Your task to perform on an android device: Open location settings Image 0: 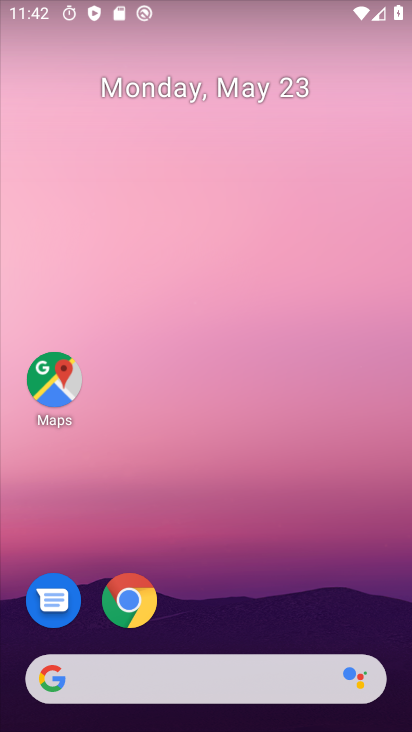
Step 0: drag from (289, 502) to (253, 160)
Your task to perform on an android device: Open location settings Image 1: 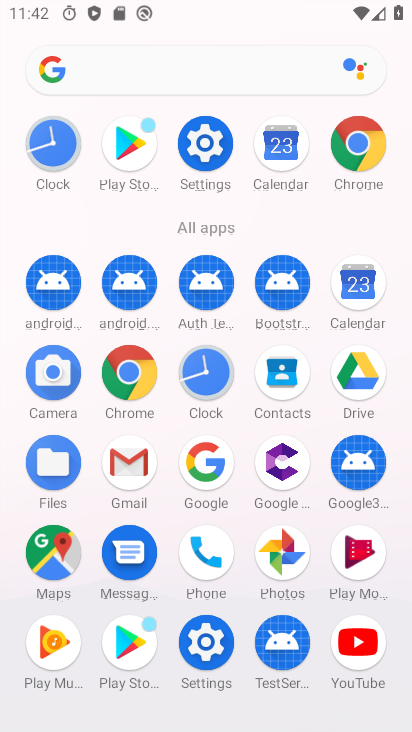
Step 1: click (175, 140)
Your task to perform on an android device: Open location settings Image 2: 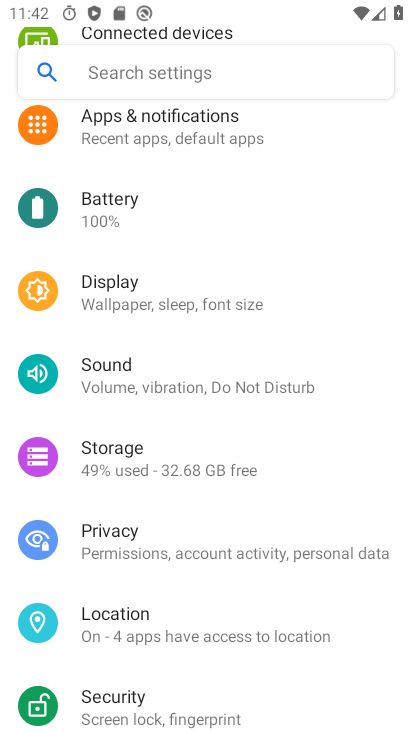
Step 2: click (130, 625)
Your task to perform on an android device: Open location settings Image 3: 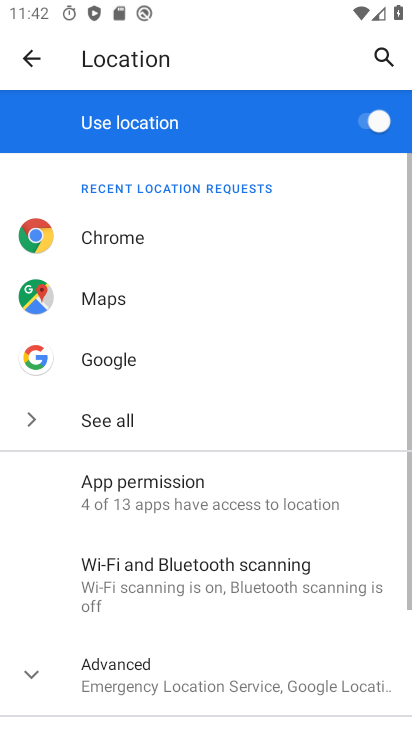
Step 3: task complete